Your task to perform on an android device: Go to Yahoo.com Image 0: 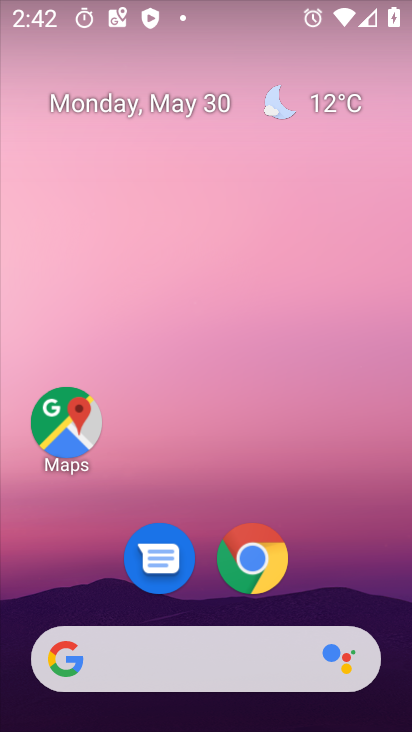
Step 0: click (254, 555)
Your task to perform on an android device: Go to Yahoo.com Image 1: 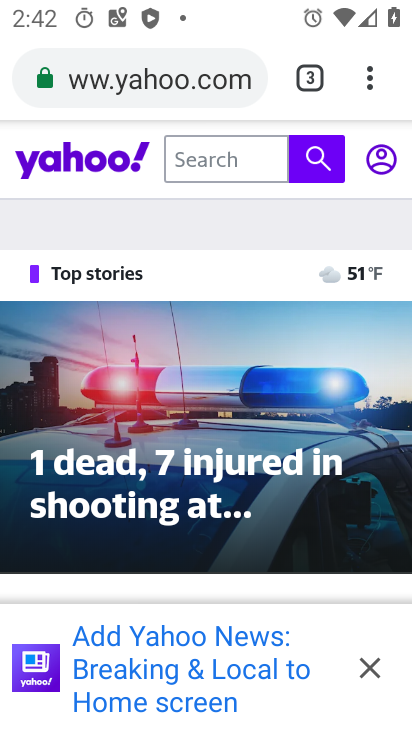
Step 1: task complete